Your task to perform on an android device: Go to location settings Image 0: 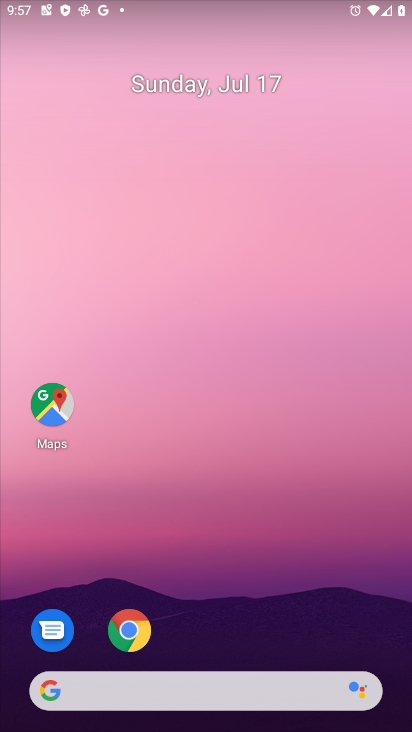
Step 0: drag from (194, 572) to (186, 0)
Your task to perform on an android device: Go to location settings Image 1: 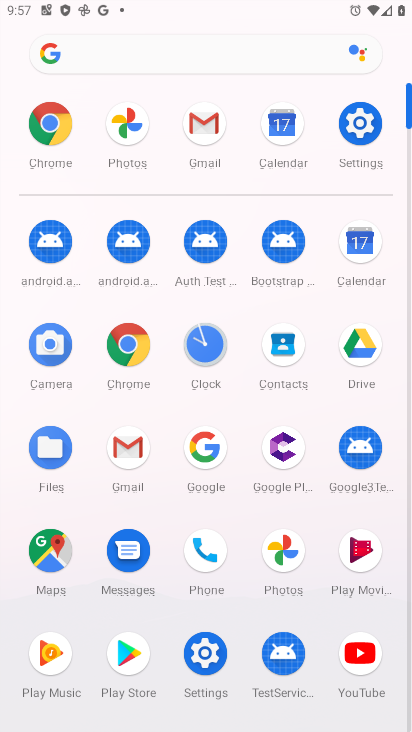
Step 1: click (365, 119)
Your task to perform on an android device: Go to location settings Image 2: 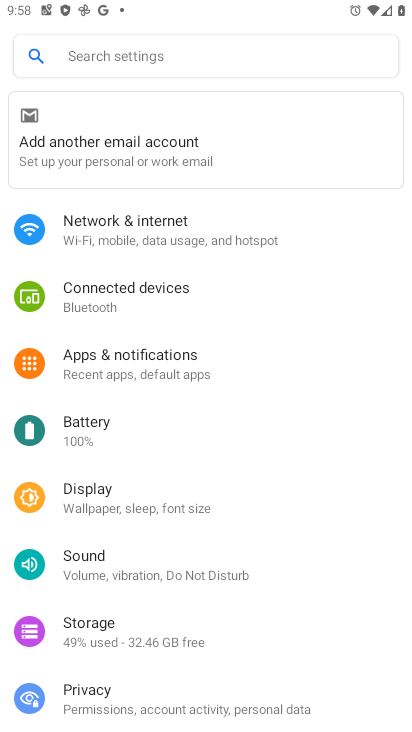
Step 2: drag from (256, 647) to (221, 344)
Your task to perform on an android device: Go to location settings Image 3: 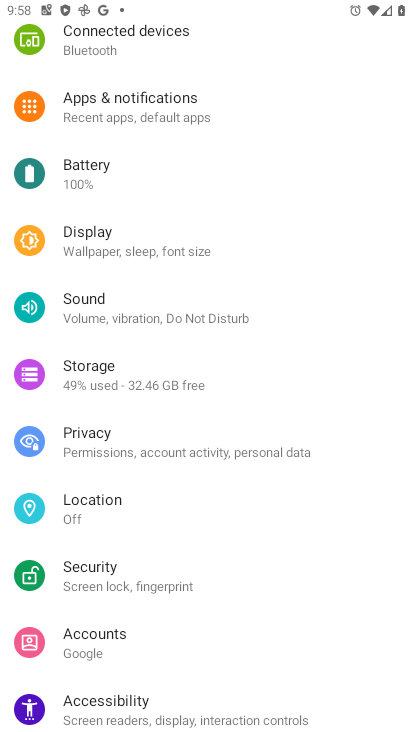
Step 3: drag from (229, 630) to (229, 396)
Your task to perform on an android device: Go to location settings Image 4: 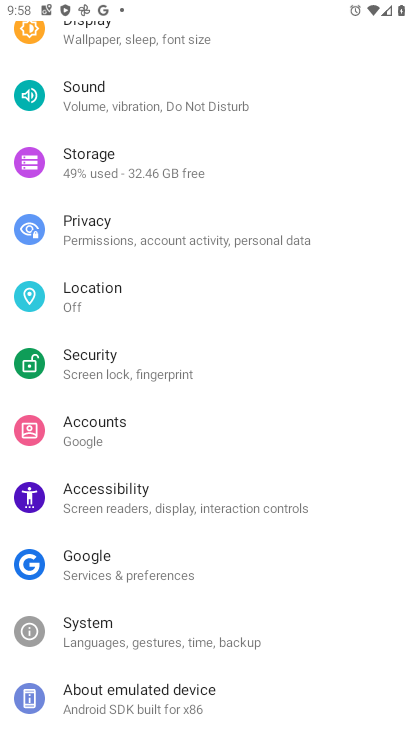
Step 4: click (69, 295)
Your task to perform on an android device: Go to location settings Image 5: 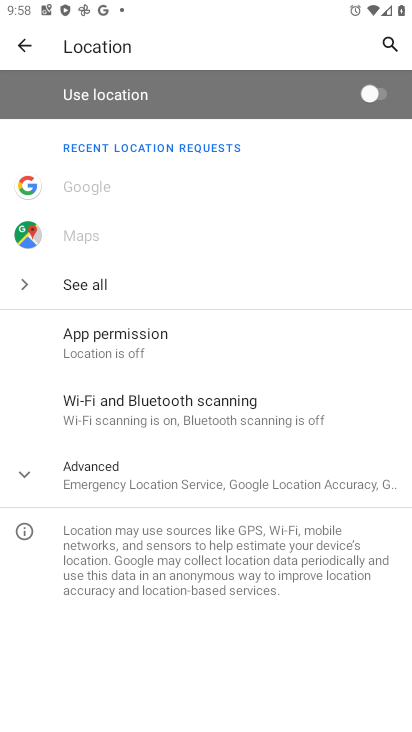
Step 5: task complete